Your task to perform on an android device: Open Youtube and go to "Your channel" Image 0: 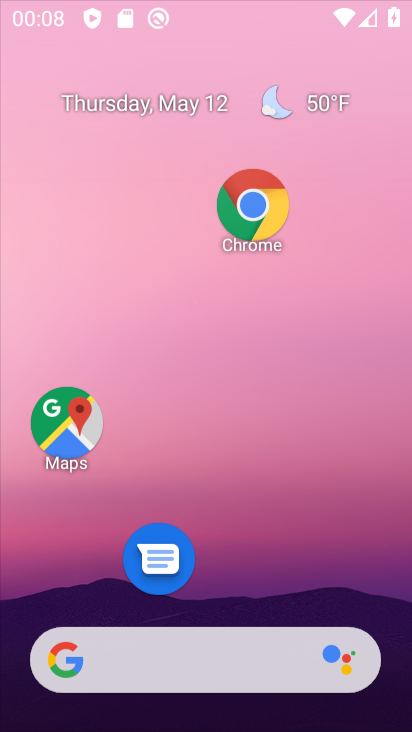
Step 0: click (272, 103)
Your task to perform on an android device: Open Youtube and go to "Your channel" Image 1: 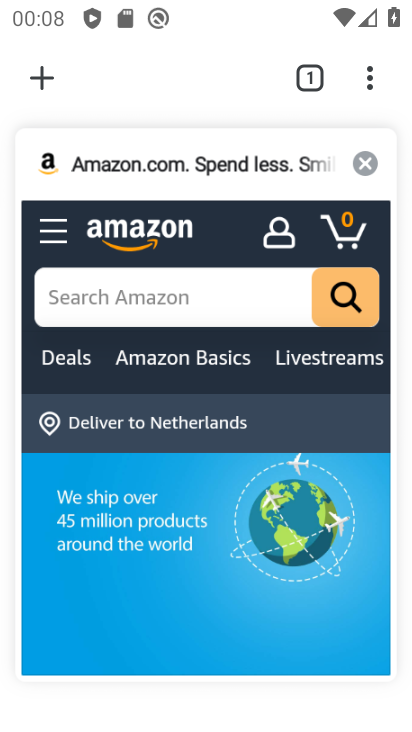
Step 1: press home button
Your task to perform on an android device: Open Youtube and go to "Your channel" Image 2: 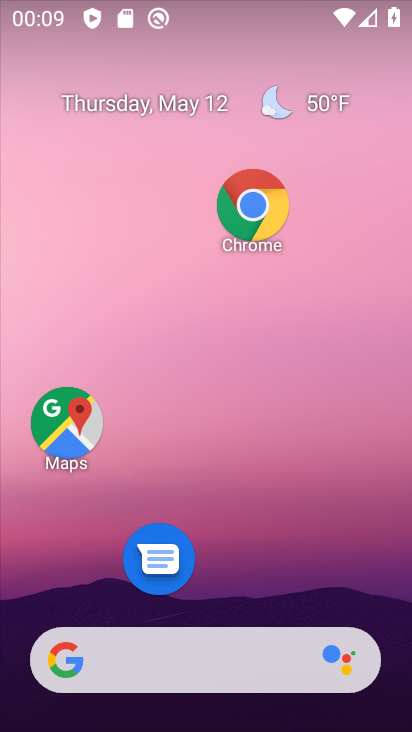
Step 2: drag from (267, 590) to (242, 98)
Your task to perform on an android device: Open Youtube and go to "Your channel" Image 3: 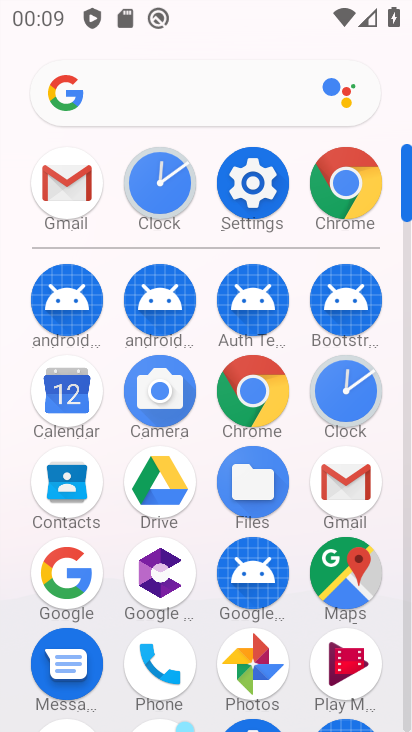
Step 3: drag from (298, 640) to (376, 314)
Your task to perform on an android device: Open Youtube and go to "Your channel" Image 4: 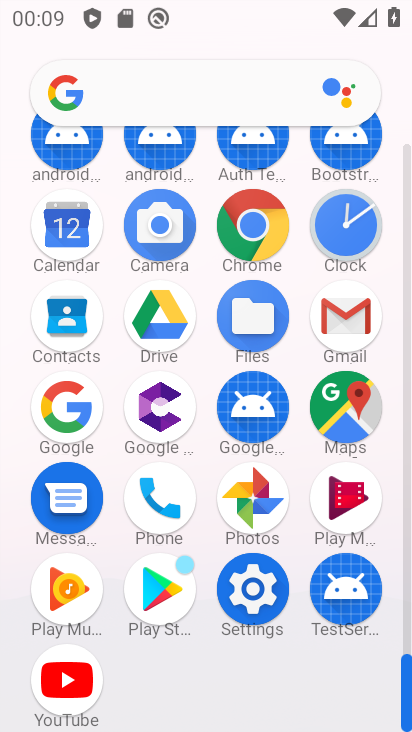
Step 4: click (50, 700)
Your task to perform on an android device: Open Youtube and go to "Your channel" Image 5: 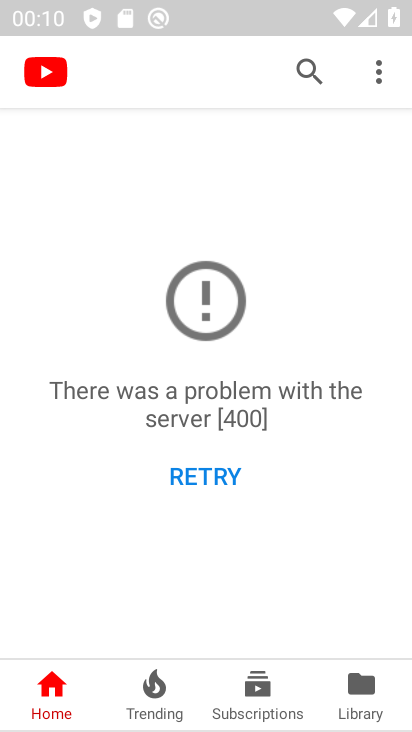
Step 5: task complete